Your task to perform on an android device: choose inbox layout in the gmail app Image 0: 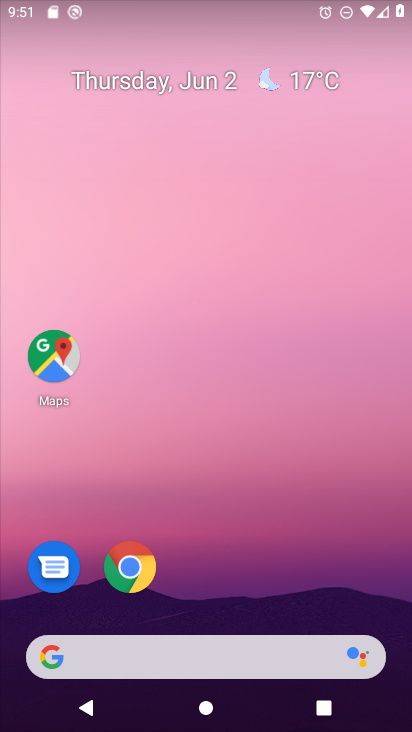
Step 0: drag from (226, 491) to (232, 377)
Your task to perform on an android device: choose inbox layout in the gmail app Image 1: 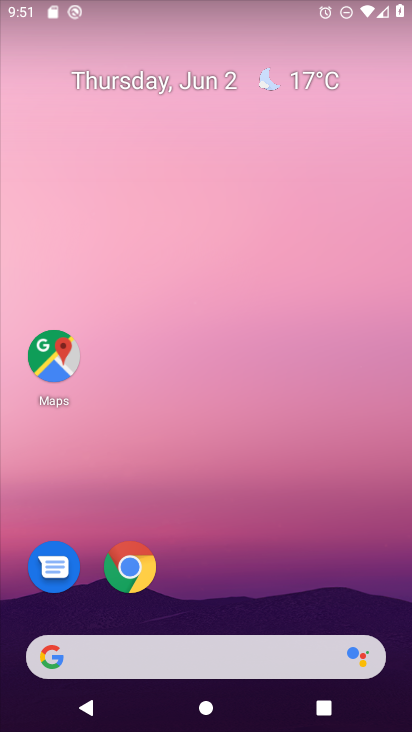
Step 1: drag from (200, 642) to (268, 216)
Your task to perform on an android device: choose inbox layout in the gmail app Image 2: 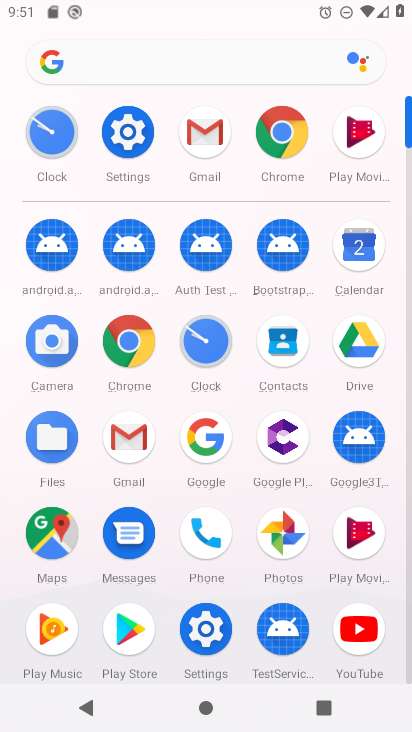
Step 2: click (125, 441)
Your task to perform on an android device: choose inbox layout in the gmail app Image 3: 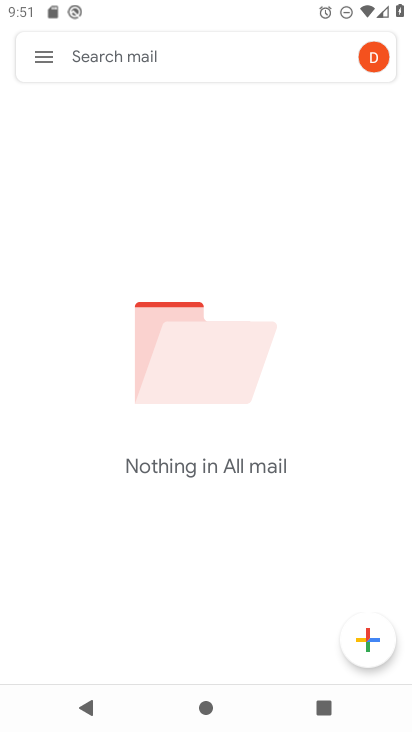
Step 3: click (43, 58)
Your task to perform on an android device: choose inbox layout in the gmail app Image 4: 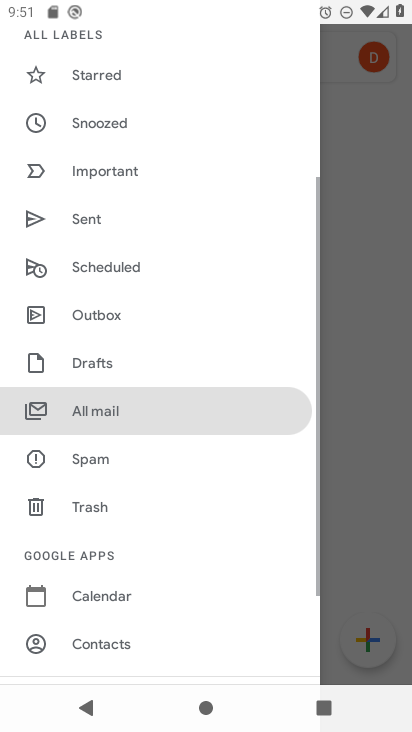
Step 4: drag from (96, 613) to (130, 198)
Your task to perform on an android device: choose inbox layout in the gmail app Image 5: 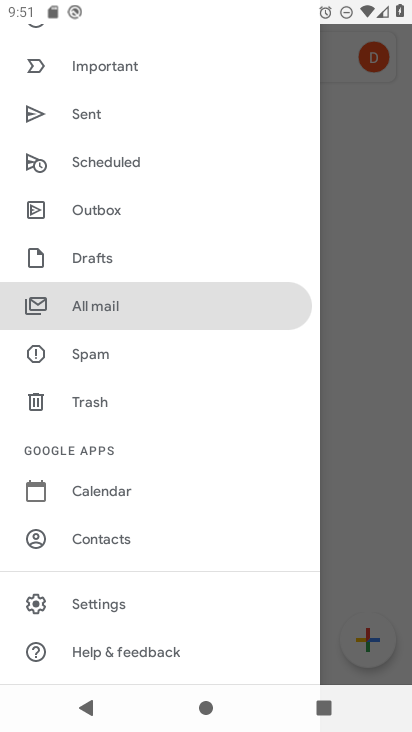
Step 5: click (127, 618)
Your task to perform on an android device: choose inbox layout in the gmail app Image 6: 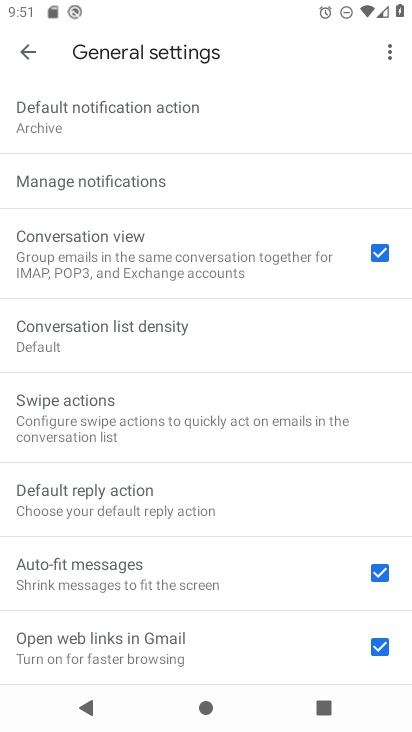
Step 6: click (27, 49)
Your task to perform on an android device: choose inbox layout in the gmail app Image 7: 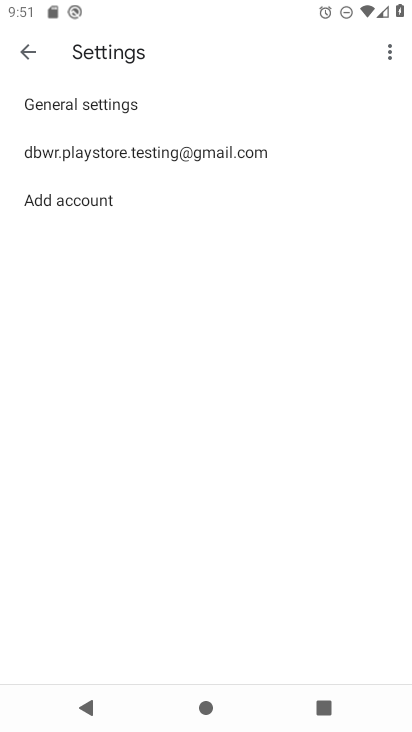
Step 7: click (153, 170)
Your task to perform on an android device: choose inbox layout in the gmail app Image 8: 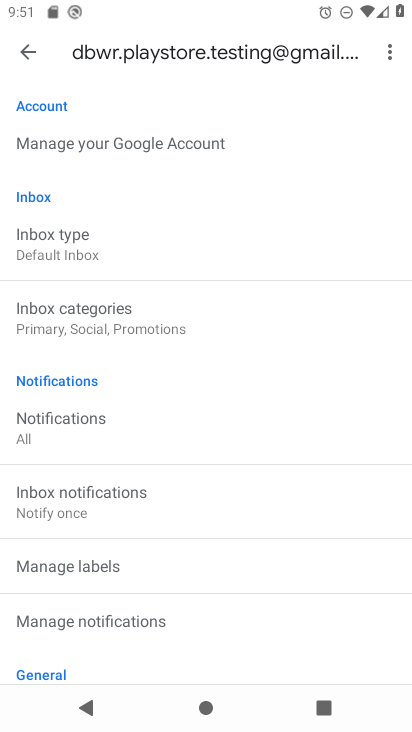
Step 8: click (126, 265)
Your task to perform on an android device: choose inbox layout in the gmail app Image 9: 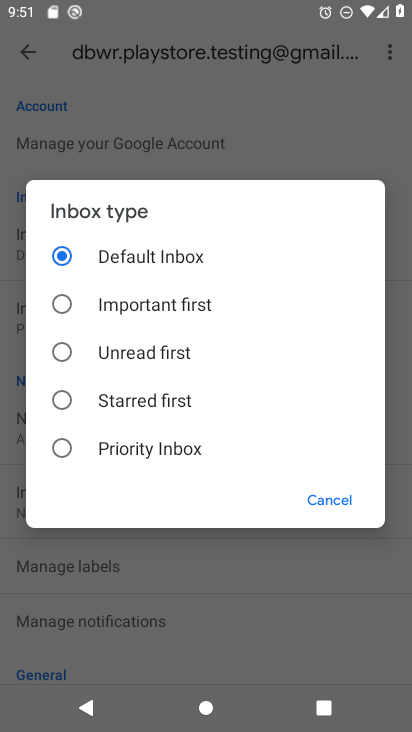
Step 9: click (143, 445)
Your task to perform on an android device: choose inbox layout in the gmail app Image 10: 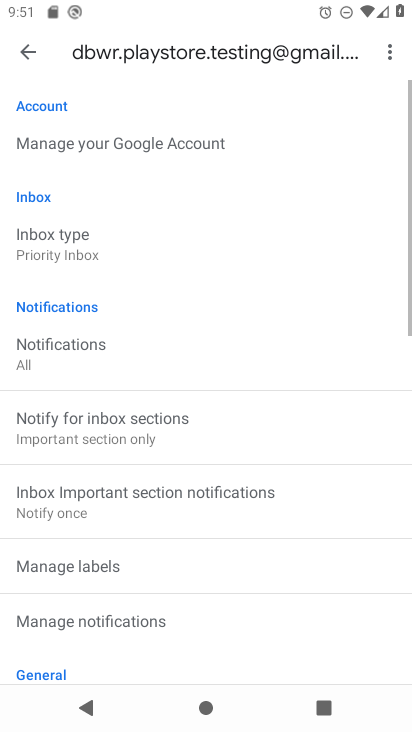
Step 10: task complete